Your task to perform on an android device: What's the weather like in Rio de Janeiro? Image 0: 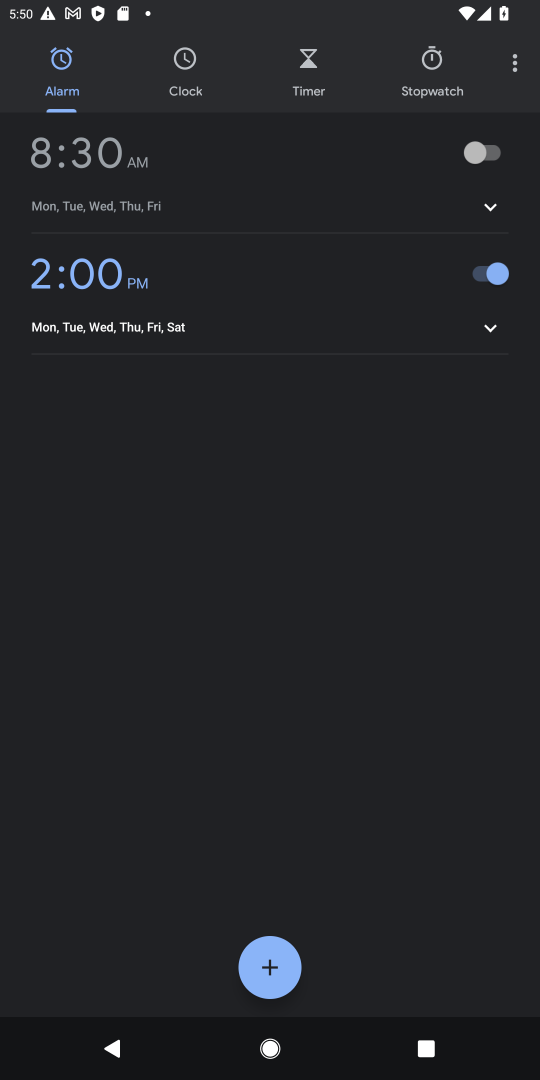
Step 0: press home button
Your task to perform on an android device: What's the weather like in Rio de Janeiro? Image 1: 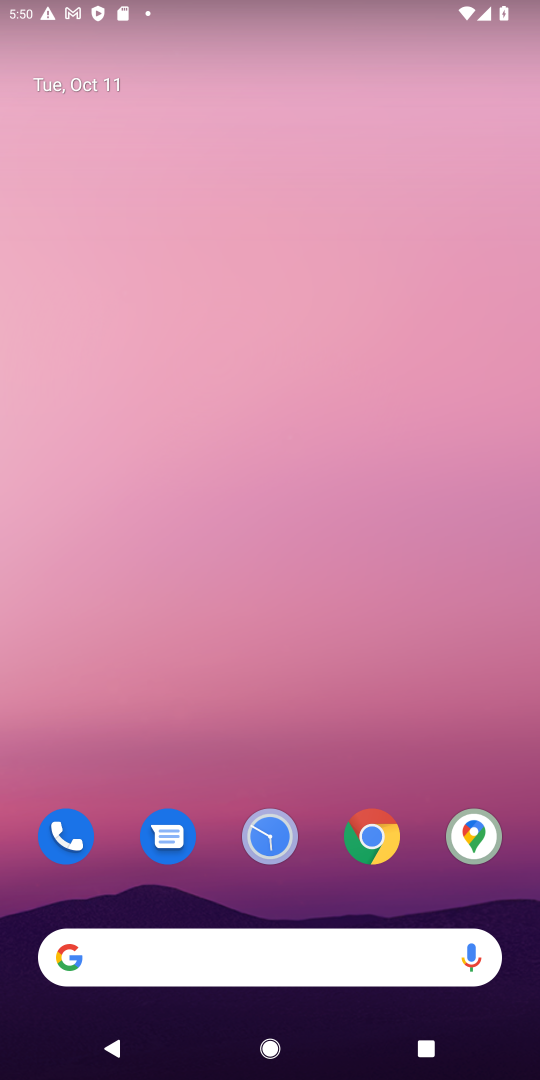
Step 1: click (370, 843)
Your task to perform on an android device: What's the weather like in Rio de Janeiro? Image 2: 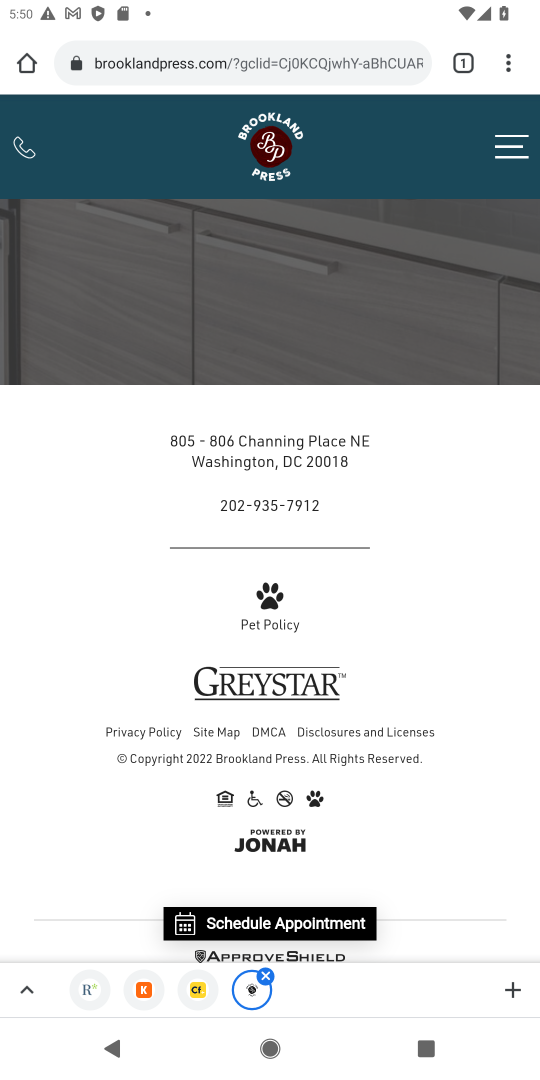
Step 2: click (189, 45)
Your task to perform on an android device: What's the weather like in Rio de Janeiro? Image 3: 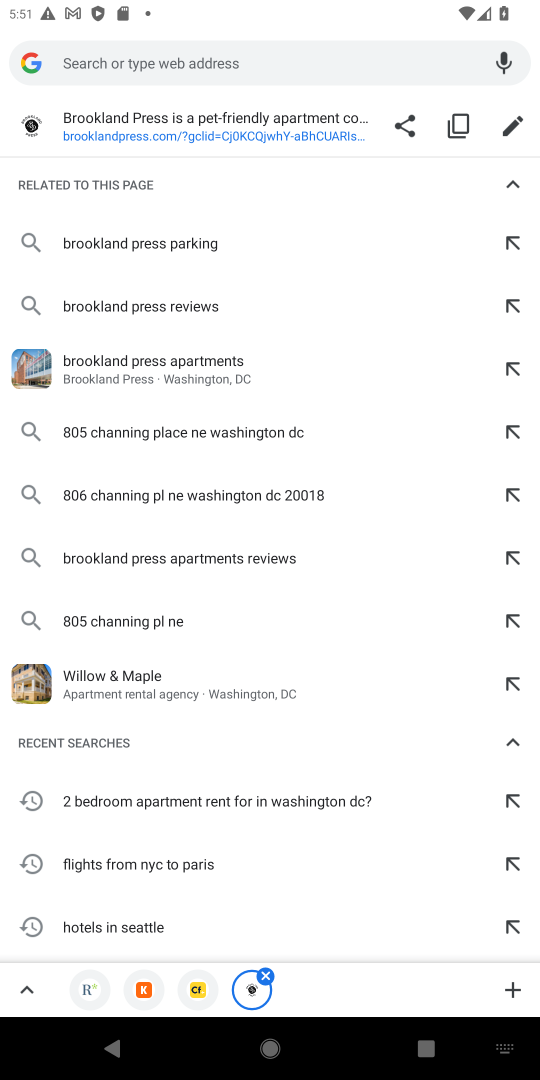
Step 3: type "weather in Rio de janeiro"
Your task to perform on an android device: What's the weather like in Rio de Janeiro? Image 4: 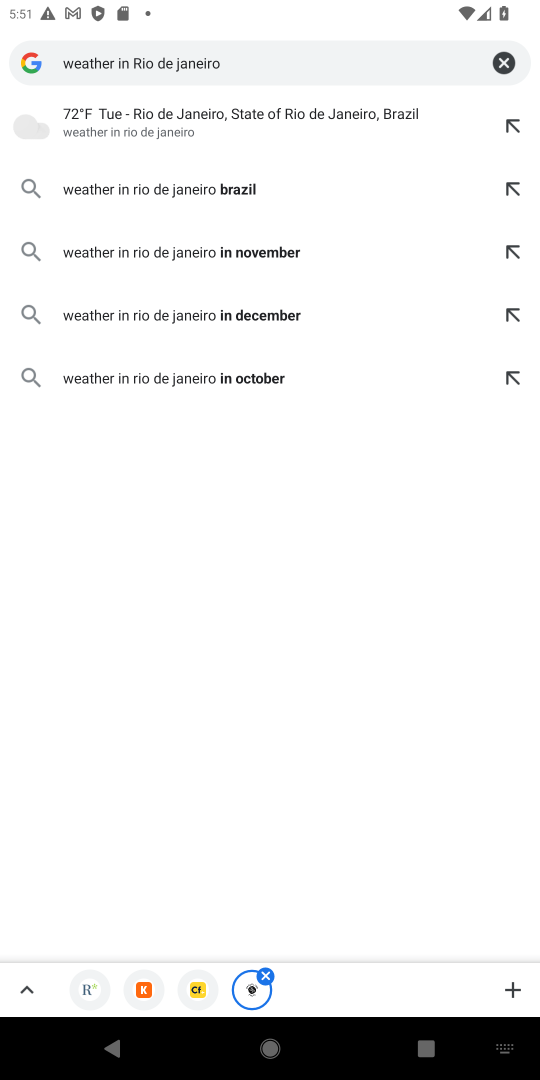
Step 4: click (115, 187)
Your task to perform on an android device: What's the weather like in Rio de Janeiro? Image 5: 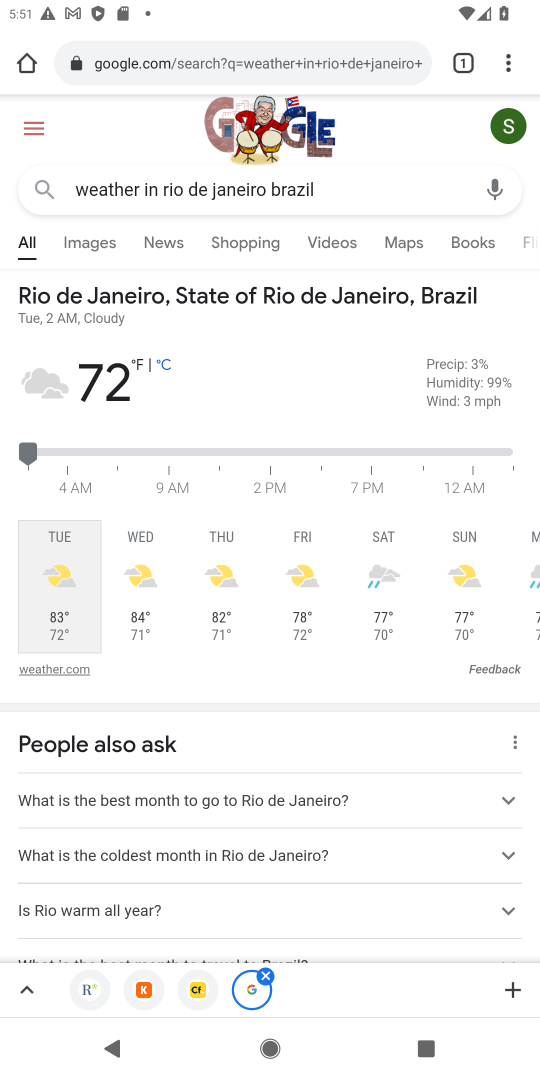
Step 5: task complete